Your task to perform on an android device: Open Google Chrome and click the shortcut for Amazon.com Image 0: 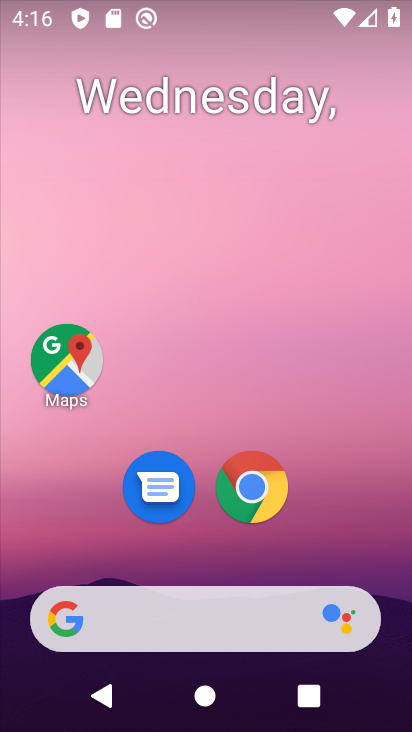
Step 0: drag from (325, 447) to (314, 363)
Your task to perform on an android device: Open Google Chrome and click the shortcut for Amazon.com Image 1: 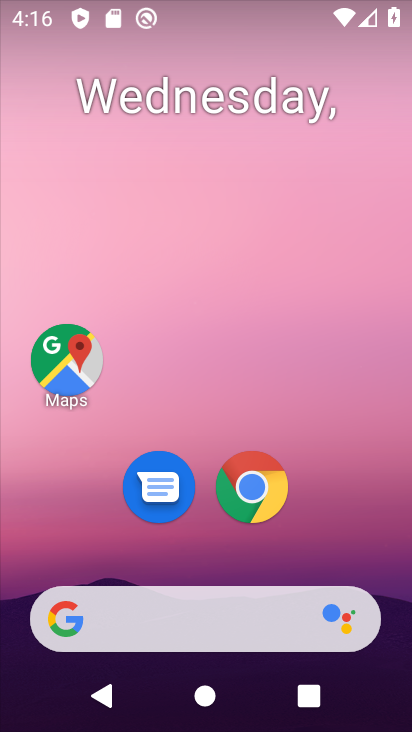
Step 1: click (252, 485)
Your task to perform on an android device: Open Google Chrome and click the shortcut for Amazon.com Image 2: 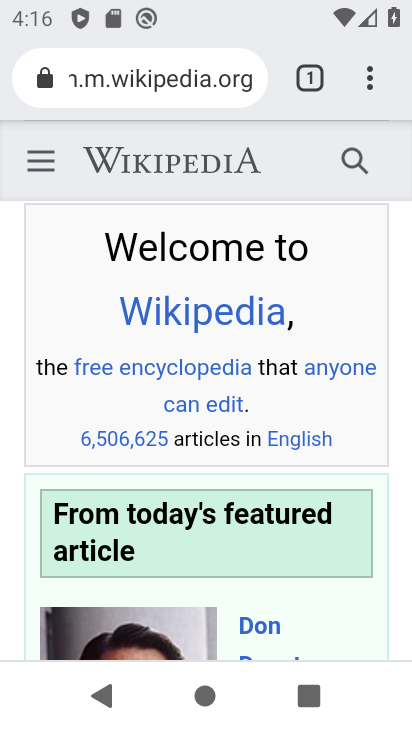
Step 2: click (366, 71)
Your task to perform on an android device: Open Google Chrome and click the shortcut for Amazon.com Image 3: 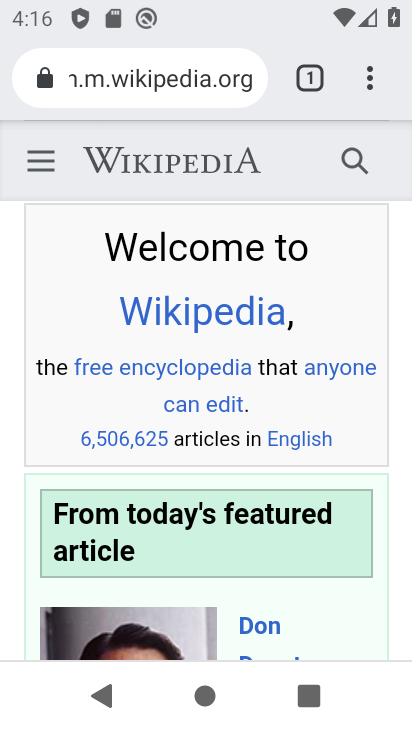
Step 3: drag from (378, 85) to (280, 145)
Your task to perform on an android device: Open Google Chrome and click the shortcut for Amazon.com Image 4: 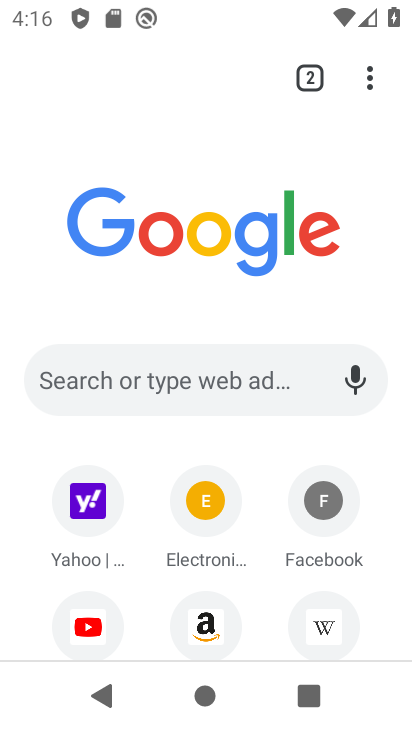
Step 4: click (209, 617)
Your task to perform on an android device: Open Google Chrome and click the shortcut for Amazon.com Image 5: 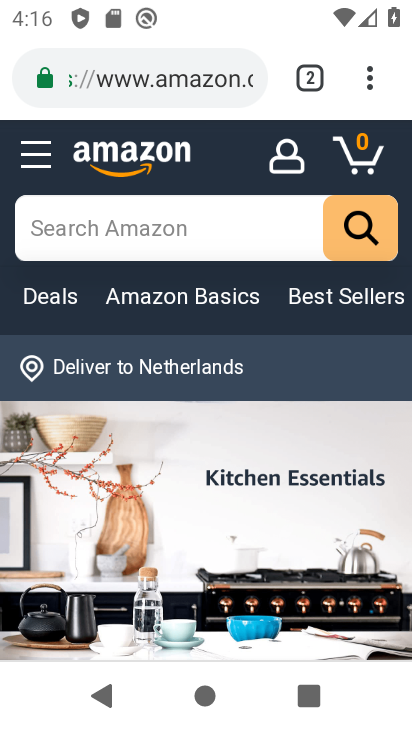
Step 5: task complete